Your task to perform on an android device: change the clock display to show seconds Image 0: 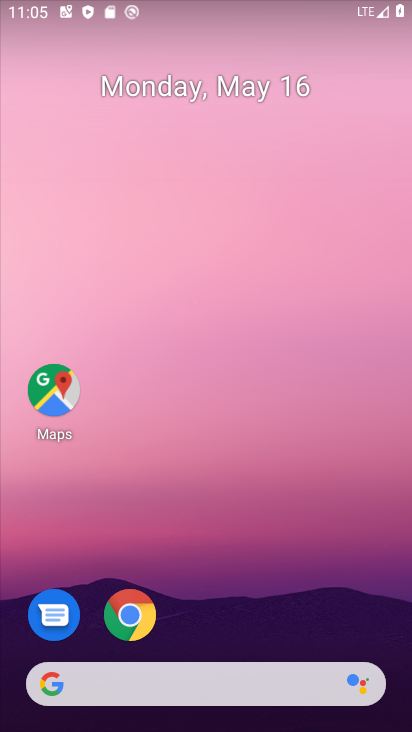
Step 0: drag from (217, 589) to (260, 162)
Your task to perform on an android device: change the clock display to show seconds Image 1: 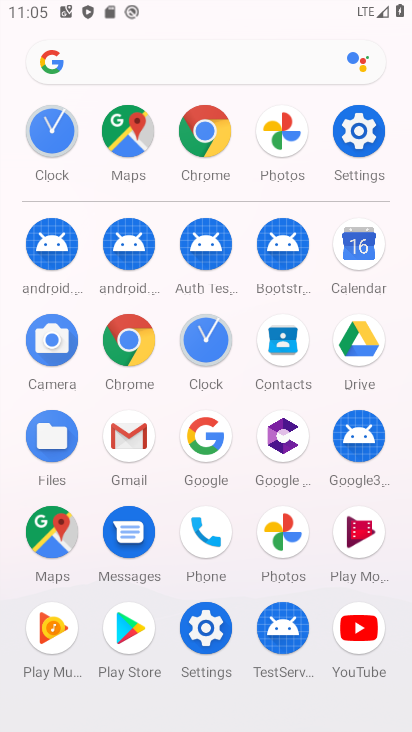
Step 1: click (55, 142)
Your task to perform on an android device: change the clock display to show seconds Image 2: 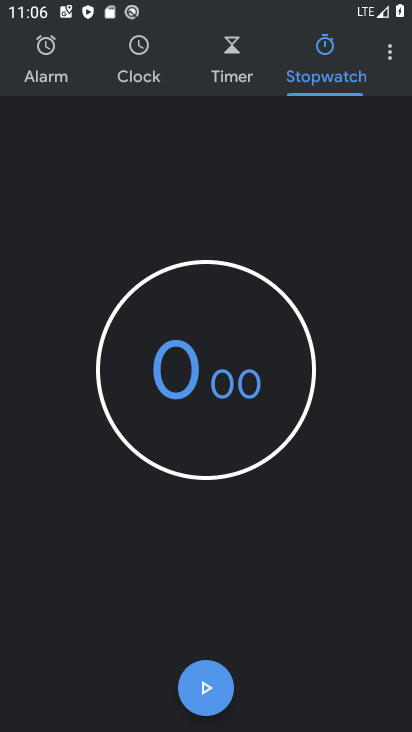
Step 2: click (387, 54)
Your task to perform on an android device: change the clock display to show seconds Image 3: 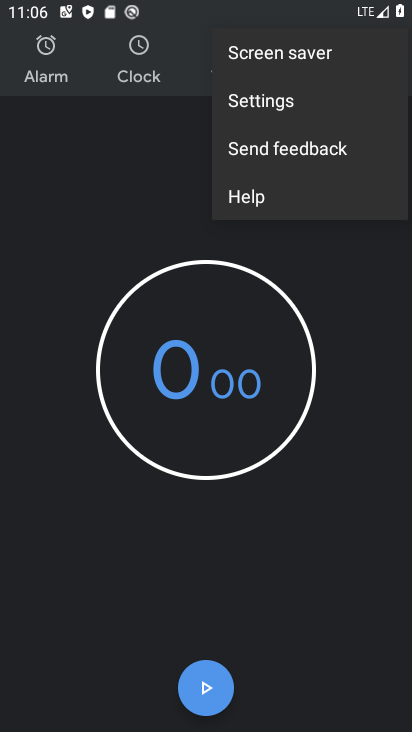
Step 3: click (312, 111)
Your task to perform on an android device: change the clock display to show seconds Image 4: 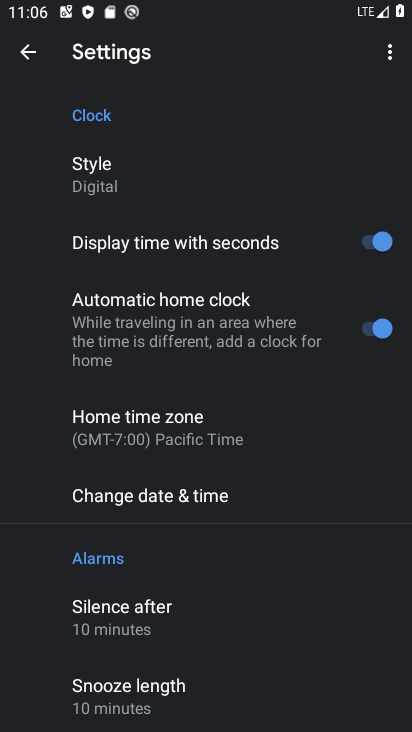
Step 4: task complete